Your task to perform on an android device: turn off location Image 0: 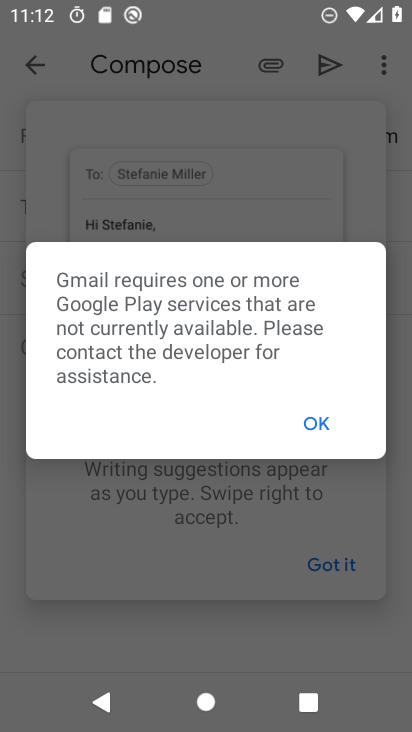
Step 0: press home button
Your task to perform on an android device: turn off location Image 1: 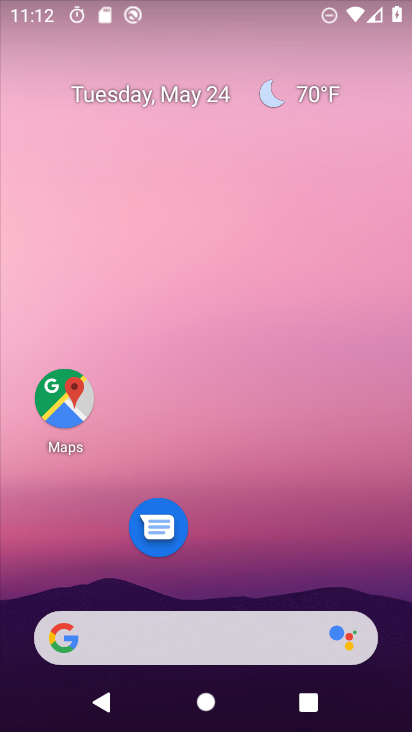
Step 1: drag from (271, 542) to (276, 128)
Your task to perform on an android device: turn off location Image 2: 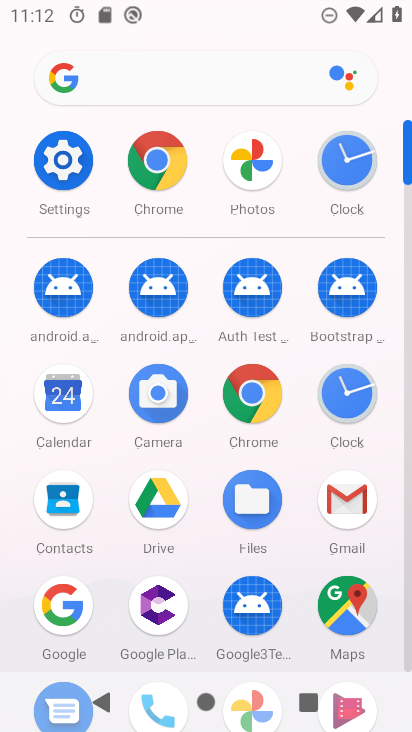
Step 2: click (61, 160)
Your task to perform on an android device: turn off location Image 3: 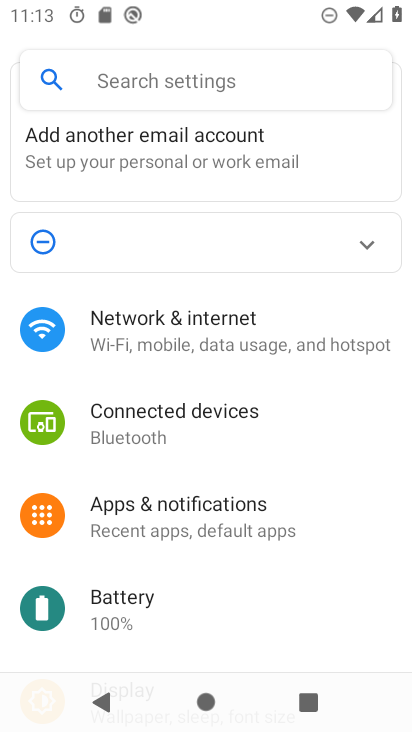
Step 3: drag from (194, 609) to (217, 70)
Your task to perform on an android device: turn off location Image 4: 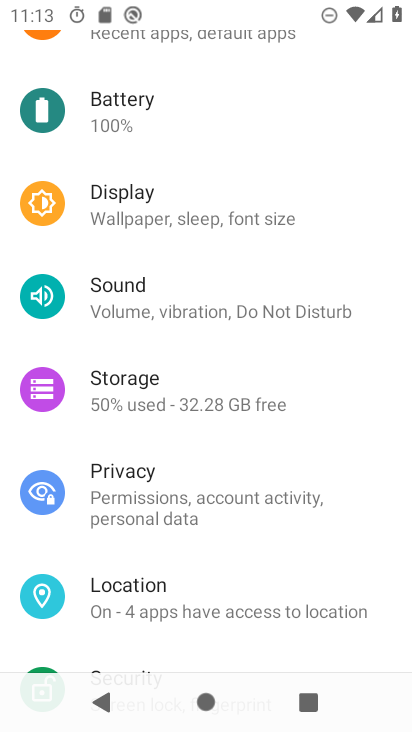
Step 4: click (115, 594)
Your task to perform on an android device: turn off location Image 5: 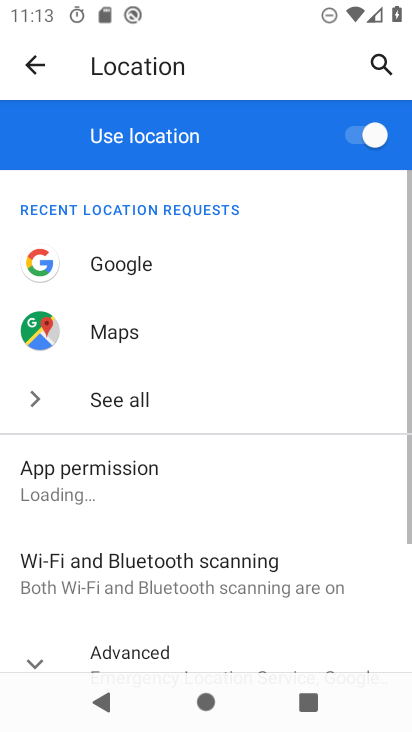
Step 5: click (352, 134)
Your task to perform on an android device: turn off location Image 6: 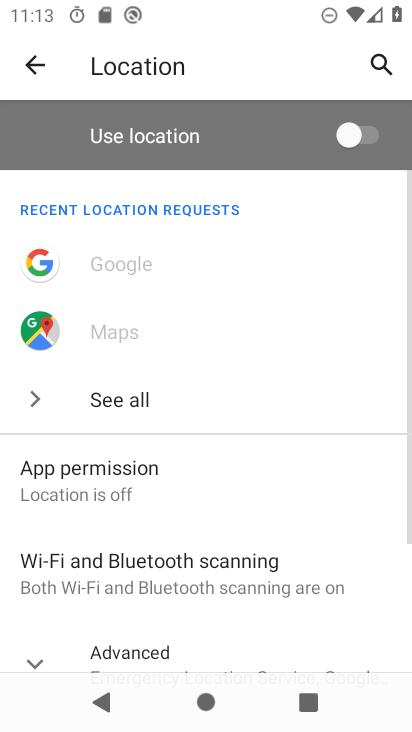
Step 6: task complete